Your task to perform on an android device: Open the phone app and click the voicemail tab. Image 0: 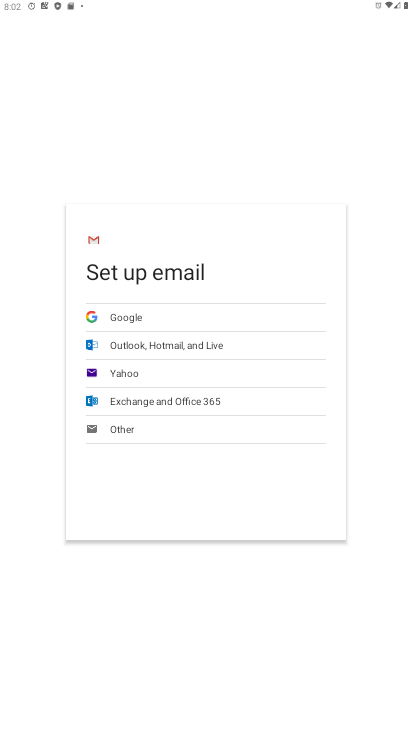
Step 0: press home button
Your task to perform on an android device: Open the phone app and click the voicemail tab. Image 1: 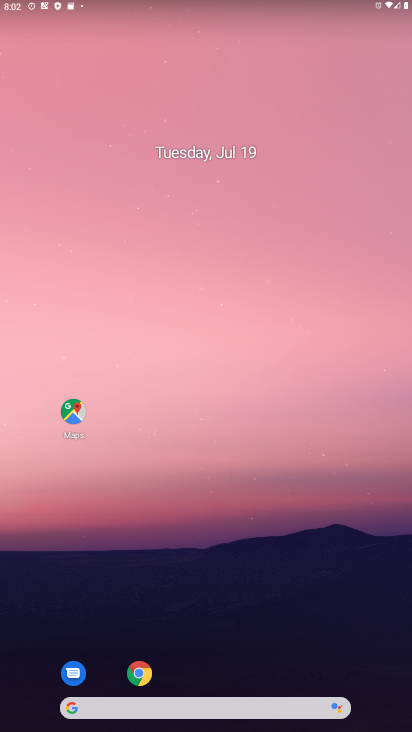
Step 1: drag from (306, 627) to (201, 8)
Your task to perform on an android device: Open the phone app and click the voicemail tab. Image 2: 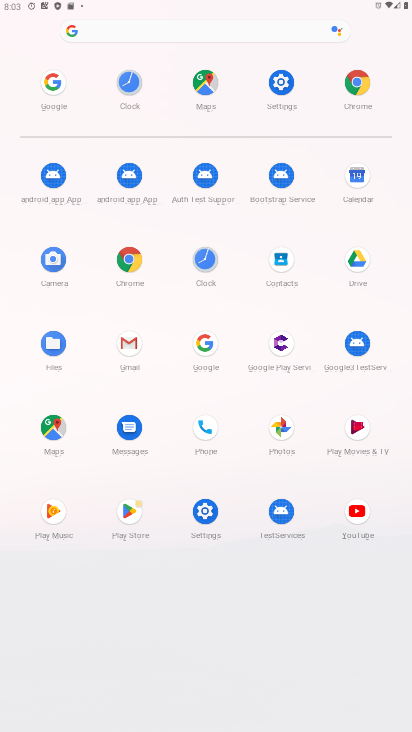
Step 2: click (197, 418)
Your task to perform on an android device: Open the phone app and click the voicemail tab. Image 3: 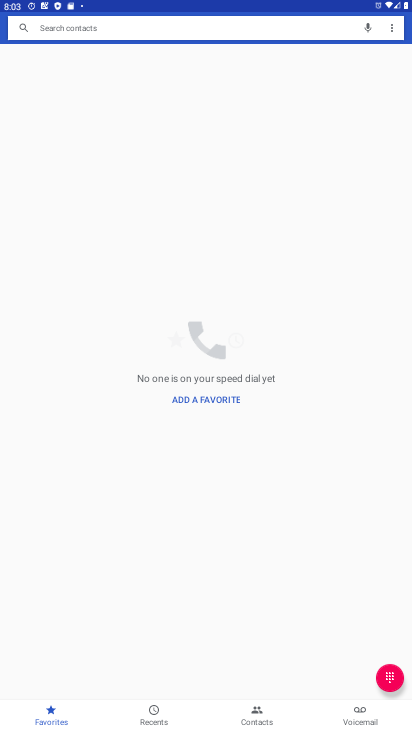
Step 3: click (360, 727)
Your task to perform on an android device: Open the phone app and click the voicemail tab. Image 4: 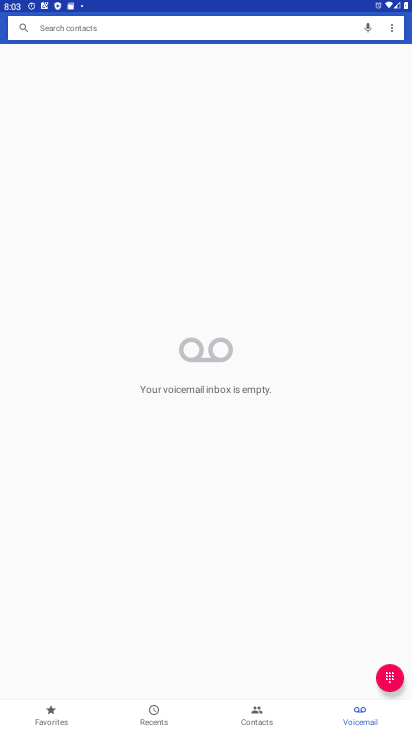
Step 4: task complete